Your task to perform on an android device: Go to Google maps Image 0: 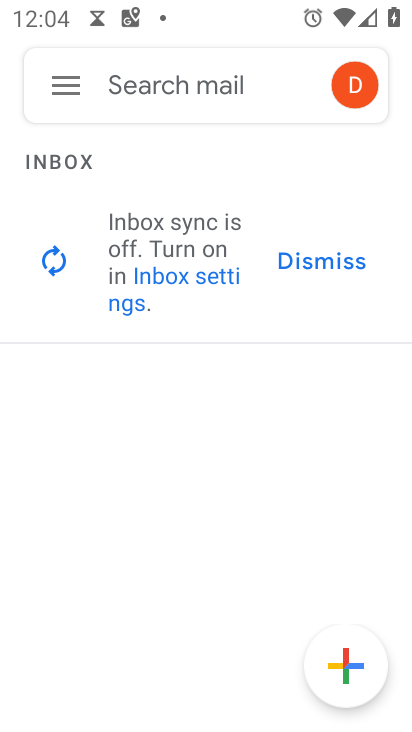
Step 0: press home button
Your task to perform on an android device: Go to Google maps Image 1: 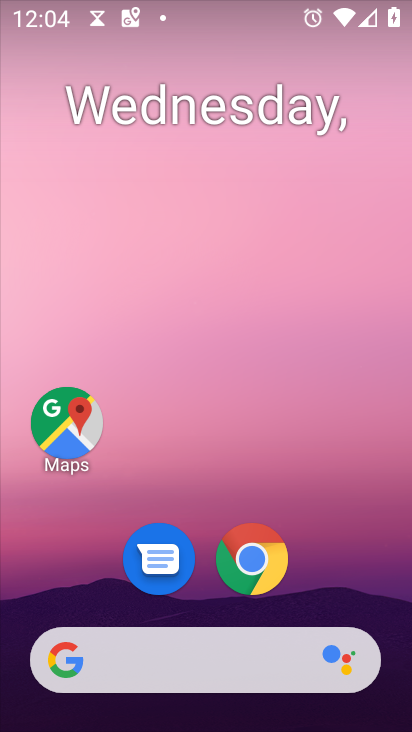
Step 1: drag from (326, 579) to (264, 67)
Your task to perform on an android device: Go to Google maps Image 2: 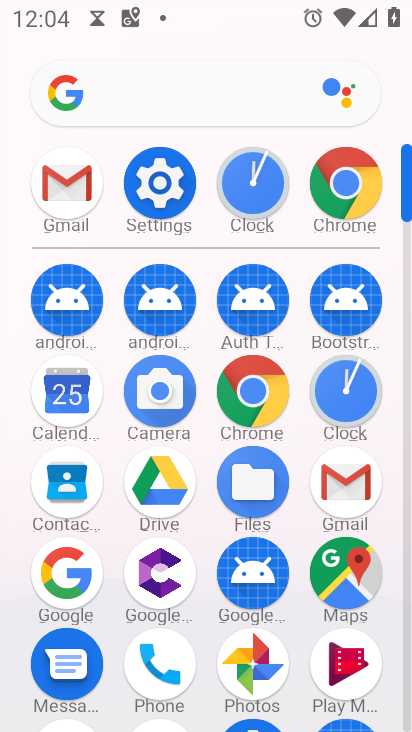
Step 2: click (336, 576)
Your task to perform on an android device: Go to Google maps Image 3: 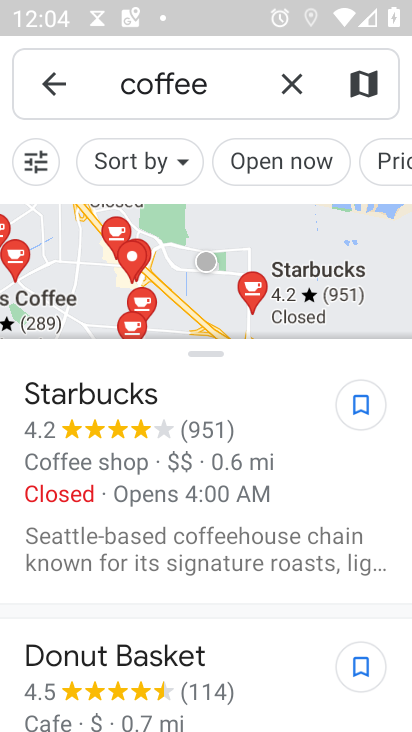
Step 3: task complete